Your task to perform on an android device: Open location settings Image 0: 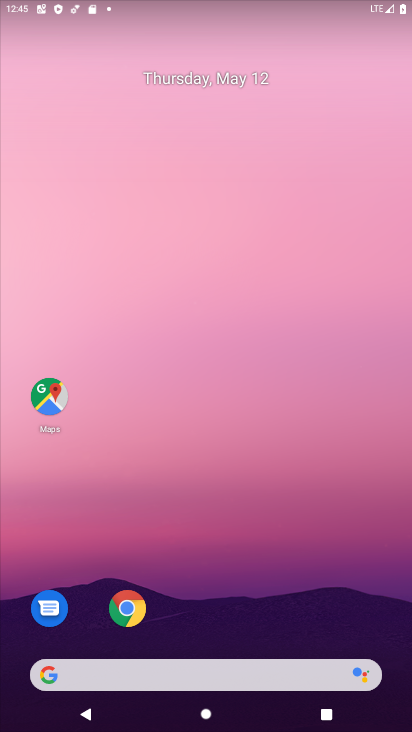
Step 0: drag from (266, 610) to (328, 0)
Your task to perform on an android device: Open location settings Image 1: 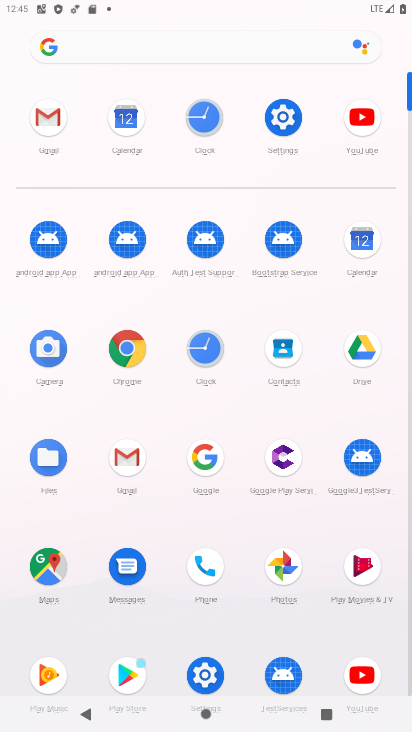
Step 1: click (289, 117)
Your task to perform on an android device: Open location settings Image 2: 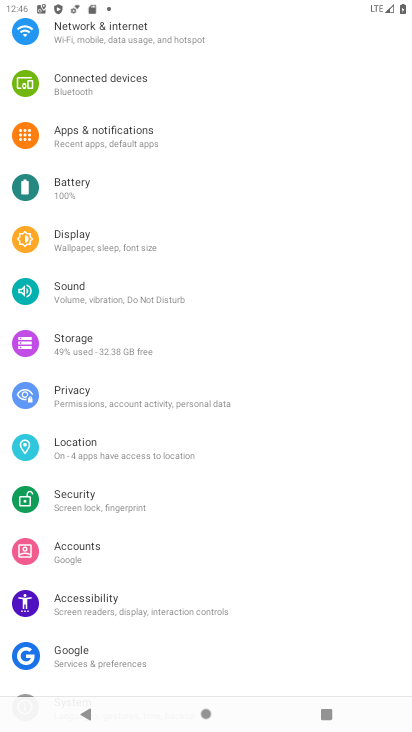
Step 2: click (85, 457)
Your task to perform on an android device: Open location settings Image 3: 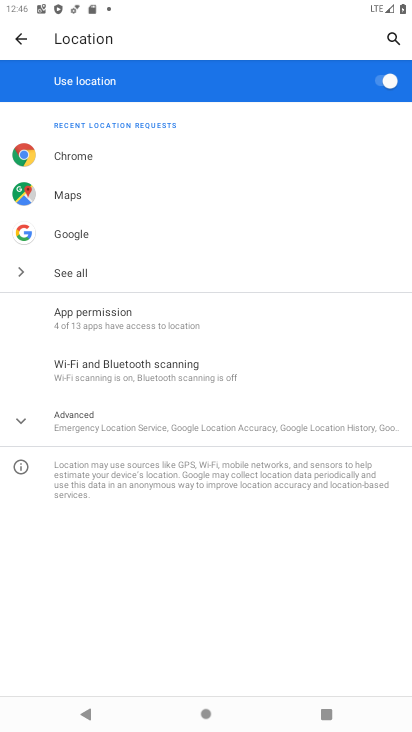
Step 3: task complete